Your task to perform on an android device: open a new tab in the chrome app Image 0: 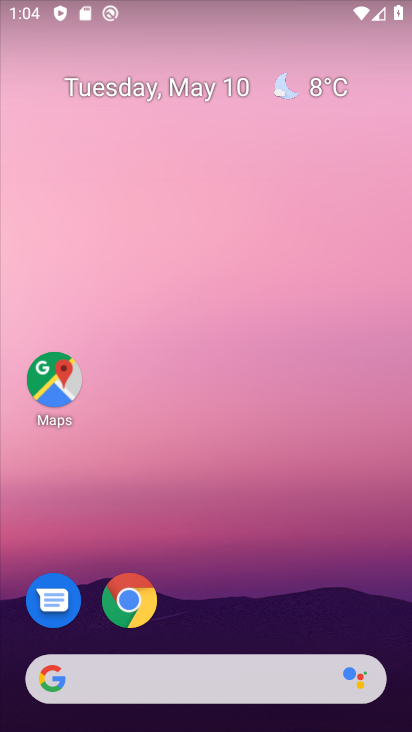
Step 0: click (124, 594)
Your task to perform on an android device: open a new tab in the chrome app Image 1: 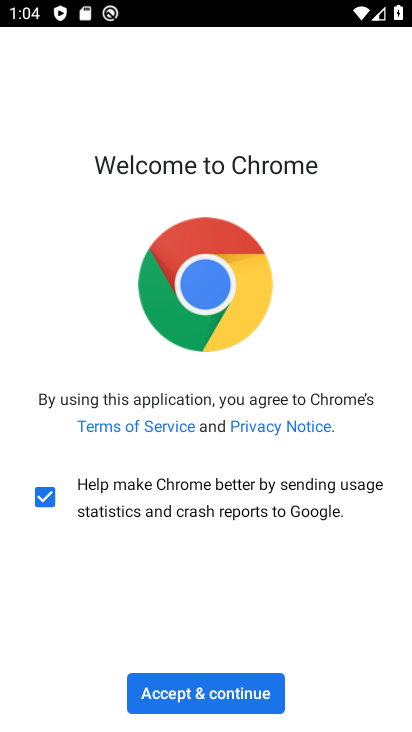
Step 1: click (191, 688)
Your task to perform on an android device: open a new tab in the chrome app Image 2: 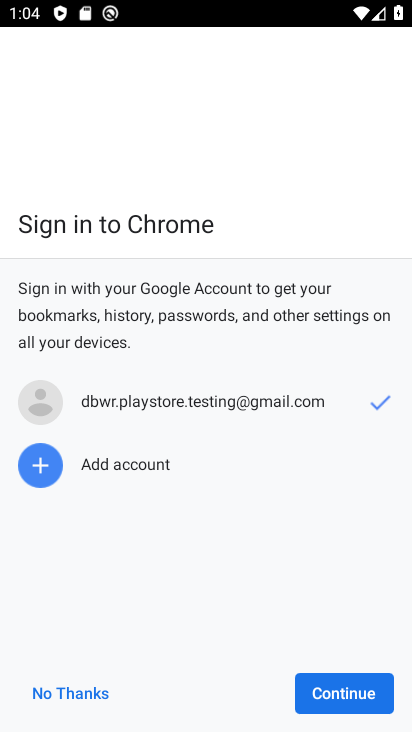
Step 2: click (346, 691)
Your task to perform on an android device: open a new tab in the chrome app Image 3: 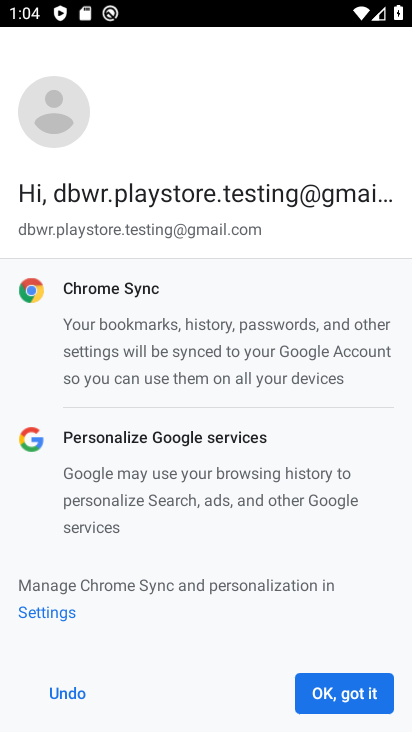
Step 3: click (344, 689)
Your task to perform on an android device: open a new tab in the chrome app Image 4: 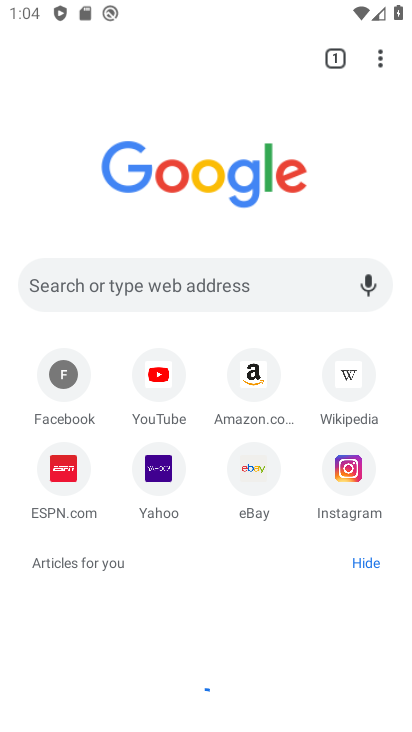
Step 4: click (381, 51)
Your task to perform on an android device: open a new tab in the chrome app Image 5: 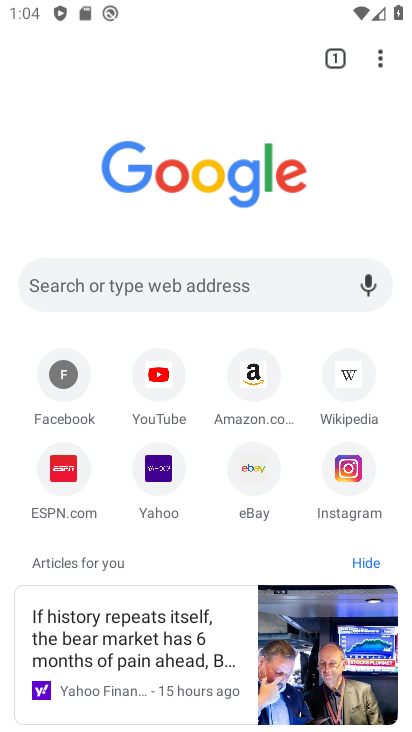
Step 5: click (380, 53)
Your task to perform on an android device: open a new tab in the chrome app Image 6: 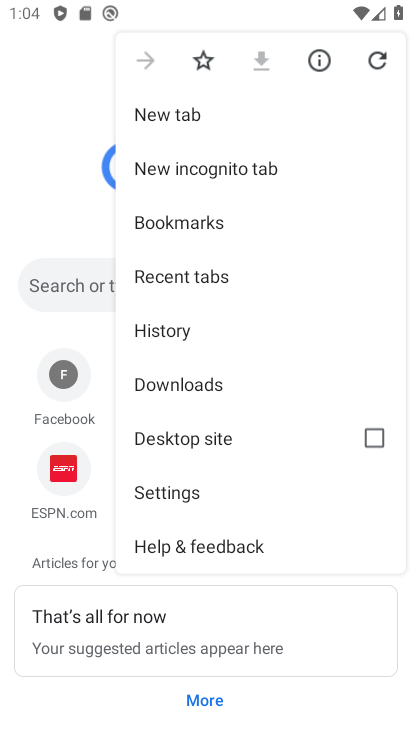
Step 6: click (214, 115)
Your task to perform on an android device: open a new tab in the chrome app Image 7: 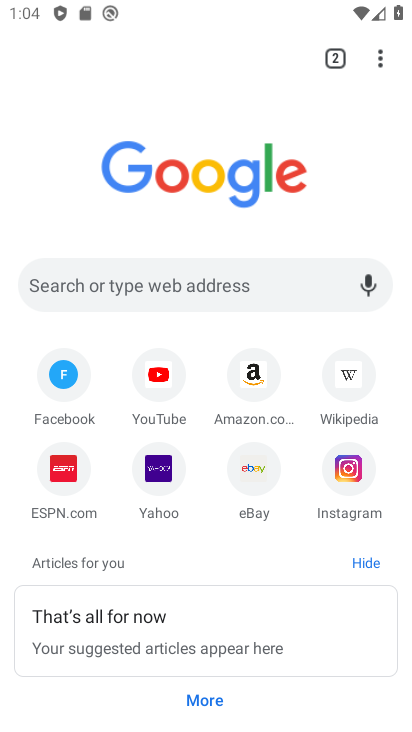
Step 7: task complete